Your task to perform on an android device: open app "Google Chrome" Image 0: 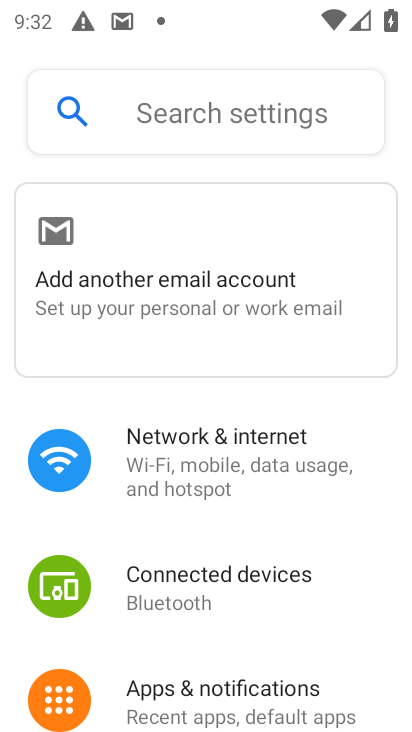
Step 0: press home button
Your task to perform on an android device: open app "Google Chrome" Image 1: 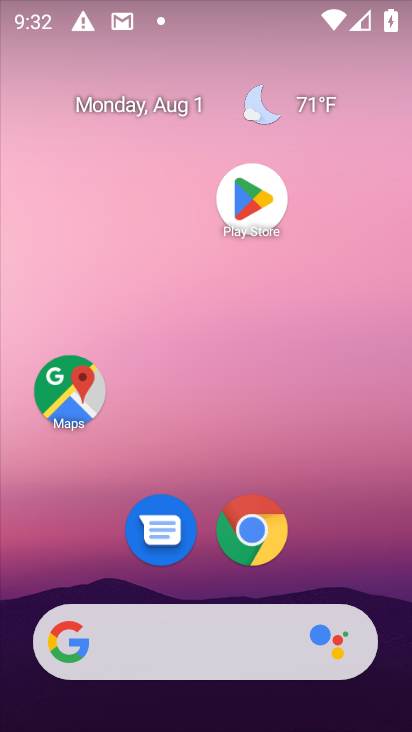
Step 1: click (270, 540)
Your task to perform on an android device: open app "Google Chrome" Image 2: 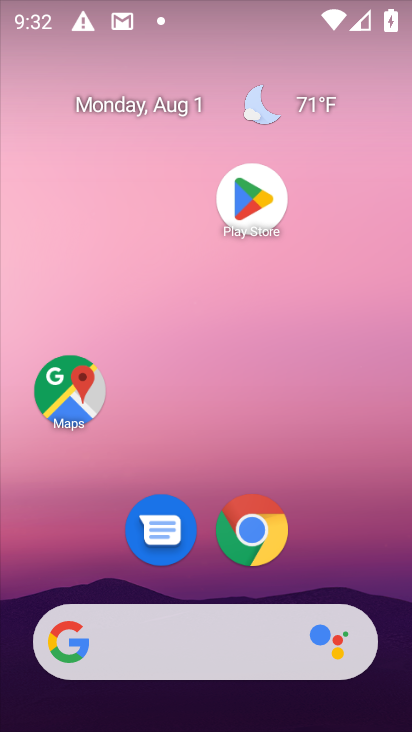
Step 2: click (270, 540)
Your task to perform on an android device: open app "Google Chrome" Image 3: 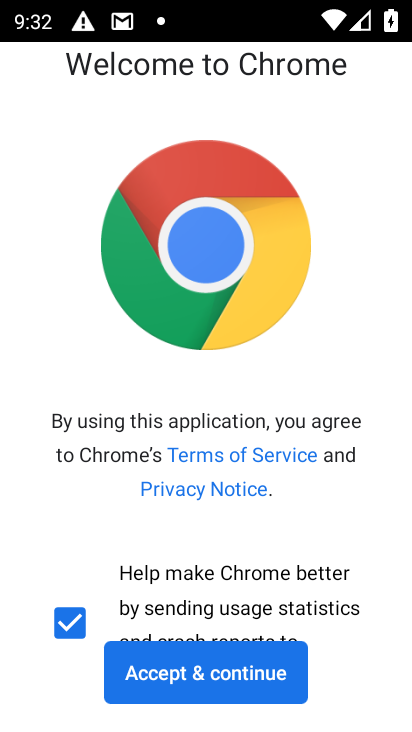
Step 3: click (250, 677)
Your task to perform on an android device: open app "Google Chrome" Image 4: 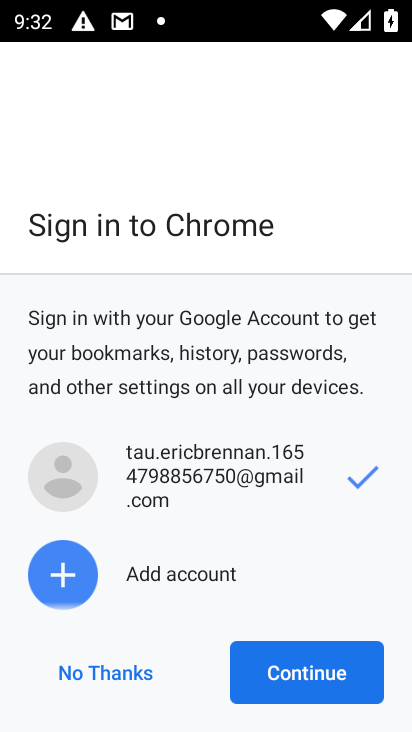
Step 4: click (250, 677)
Your task to perform on an android device: open app "Google Chrome" Image 5: 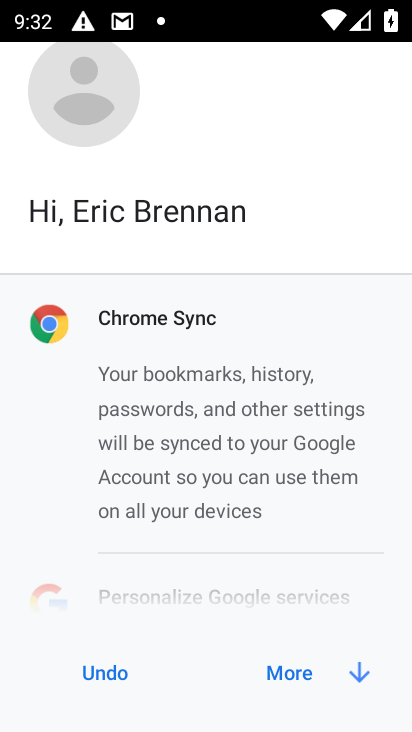
Step 5: click (262, 677)
Your task to perform on an android device: open app "Google Chrome" Image 6: 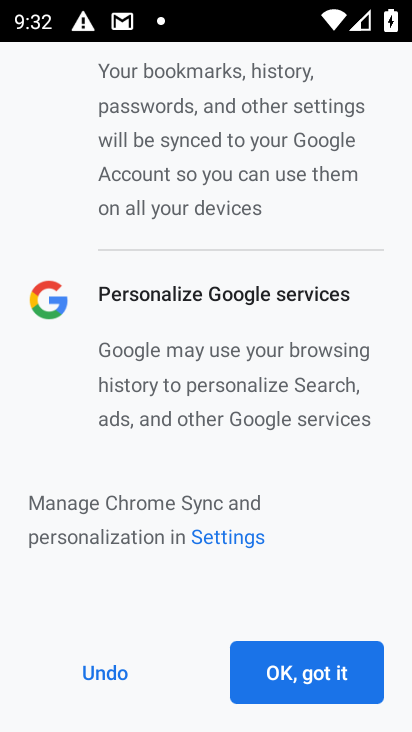
Step 6: click (332, 673)
Your task to perform on an android device: open app "Google Chrome" Image 7: 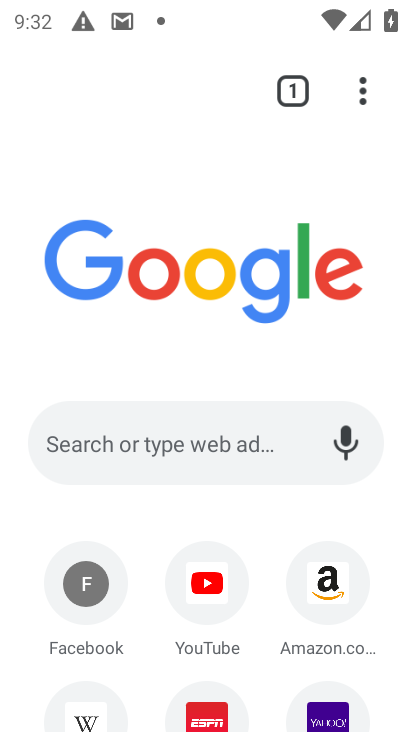
Step 7: task complete